Your task to perform on an android device: turn on bluetooth scan Image 0: 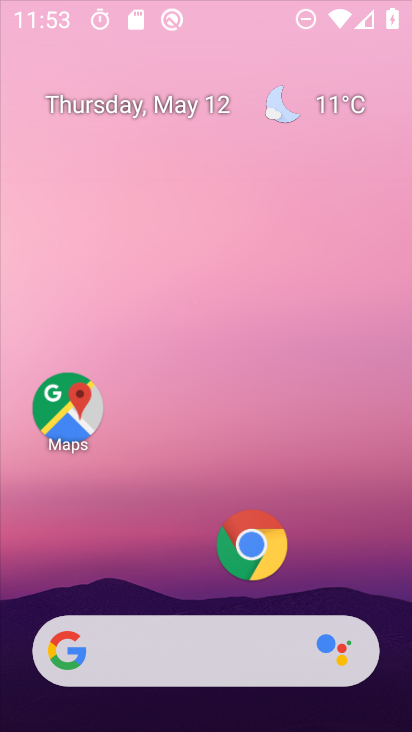
Step 0: click (195, 218)
Your task to perform on an android device: turn on bluetooth scan Image 1: 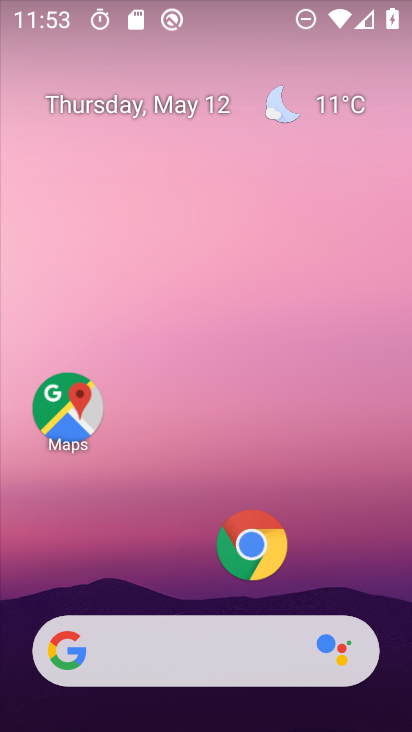
Step 1: press home button
Your task to perform on an android device: turn on bluetooth scan Image 2: 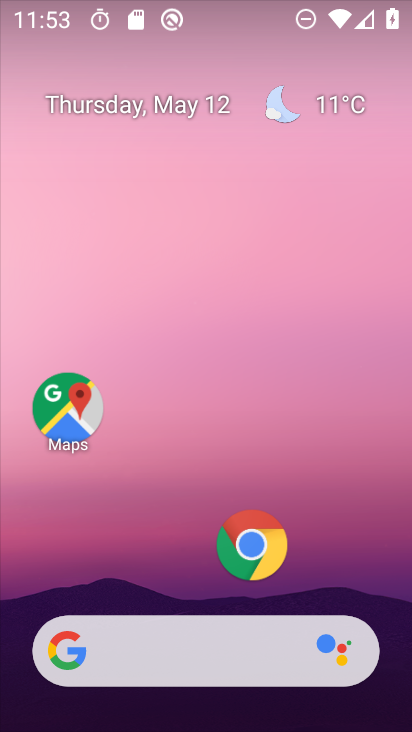
Step 2: drag from (194, 580) to (200, 123)
Your task to perform on an android device: turn on bluetooth scan Image 3: 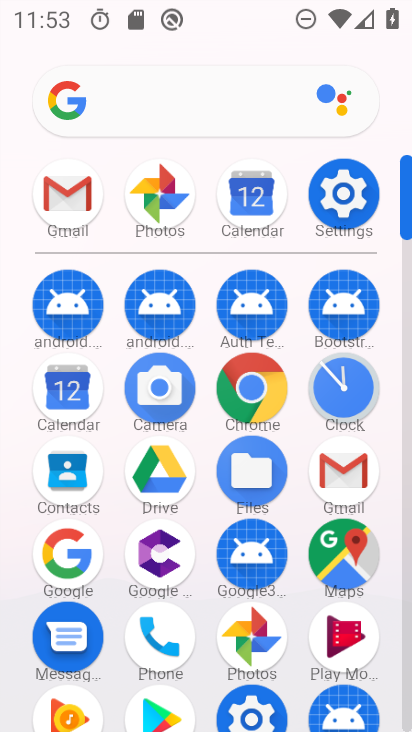
Step 3: click (342, 187)
Your task to perform on an android device: turn on bluetooth scan Image 4: 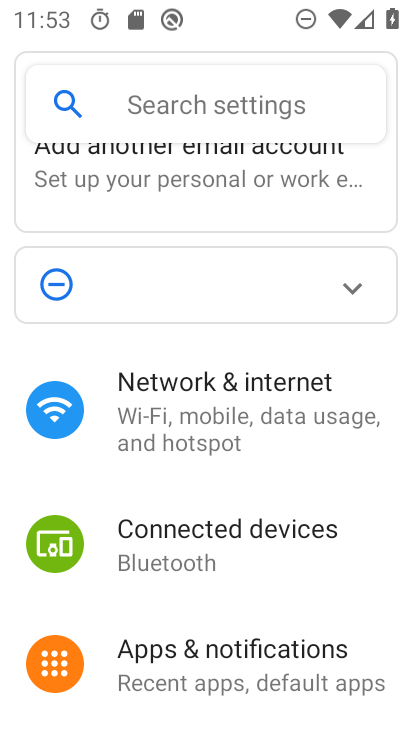
Step 4: drag from (218, 665) to (223, 62)
Your task to perform on an android device: turn on bluetooth scan Image 5: 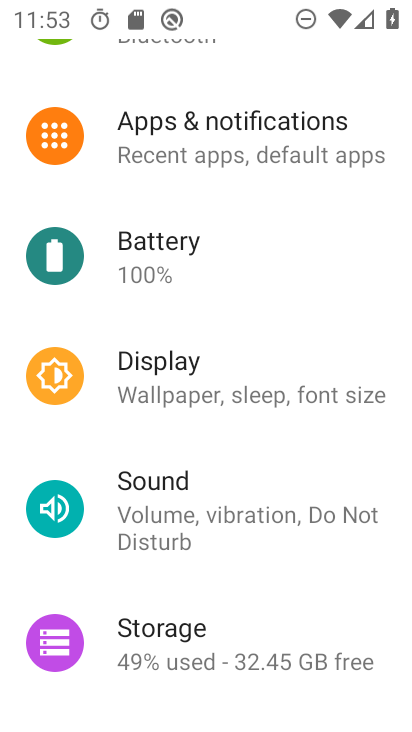
Step 5: drag from (221, 688) to (249, 171)
Your task to perform on an android device: turn on bluetooth scan Image 6: 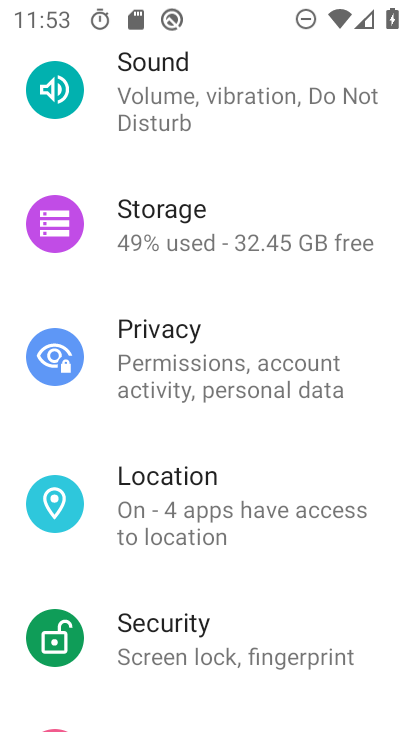
Step 6: click (225, 496)
Your task to perform on an android device: turn on bluetooth scan Image 7: 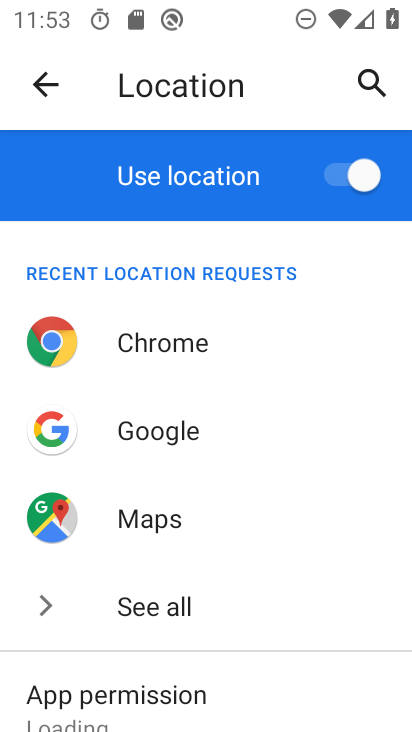
Step 7: drag from (220, 687) to (253, 185)
Your task to perform on an android device: turn on bluetooth scan Image 8: 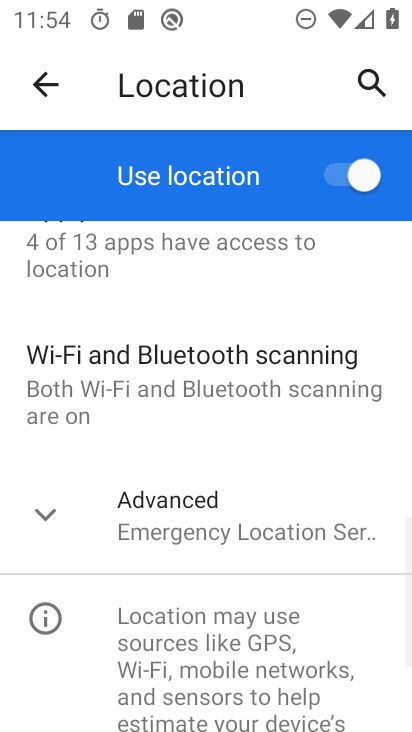
Step 8: click (219, 367)
Your task to perform on an android device: turn on bluetooth scan Image 9: 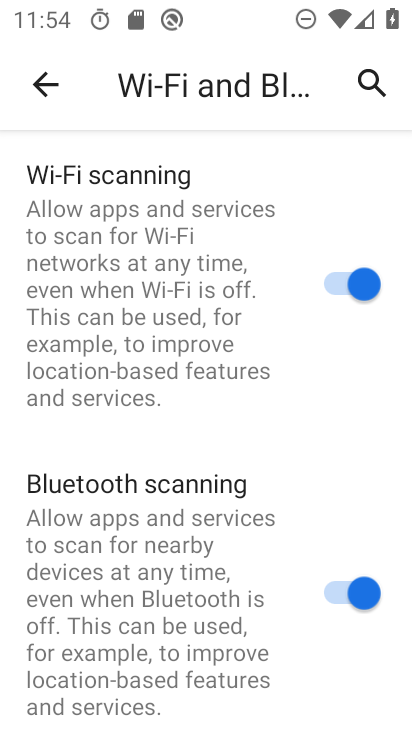
Step 9: task complete